Your task to perform on an android device: toggle sleep mode Image 0: 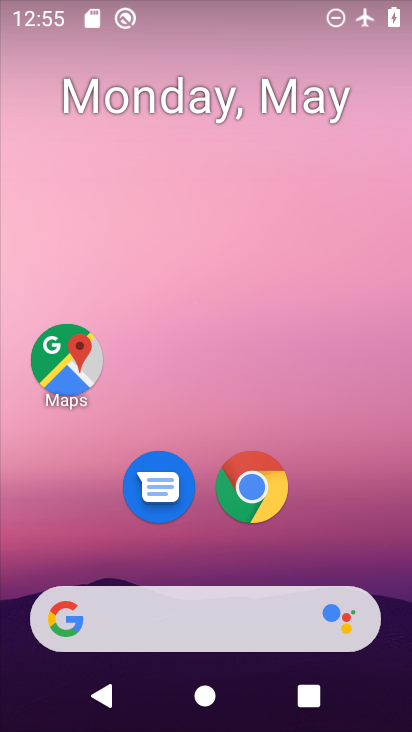
Step 0: drag from (349, 527) to (357, 201)
Your task to perform on an android device: toggle sleep mode Image 1: 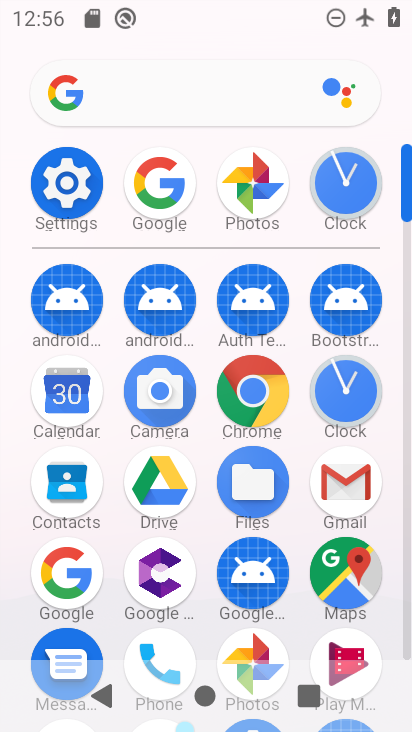
Step 1: click (67, 183)
Your task to perform on an android device: toggle sleep mode Image 2: 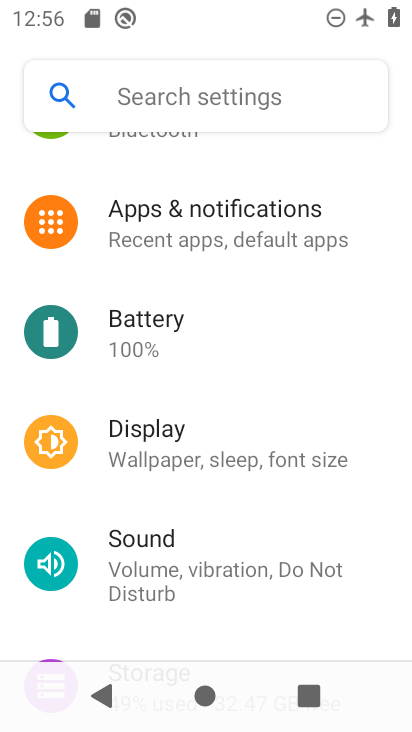
Step 2: click (240, 454)
Your task to perform on an android device: toggle sleep mode Image 3: 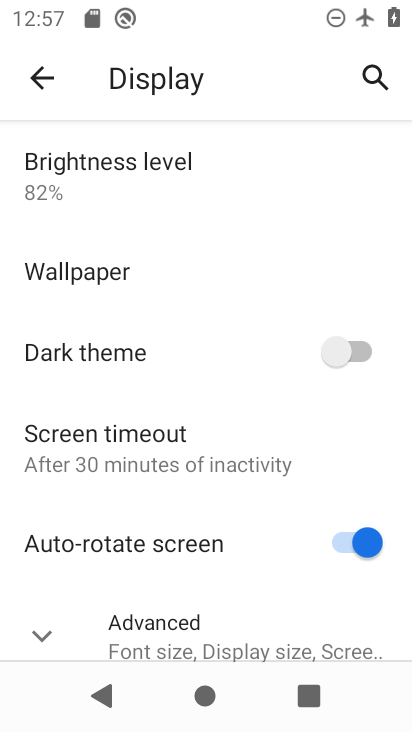
Step 3: click (132, 459)
Your task to perform on an android device: toggle sleep mode Image 4: 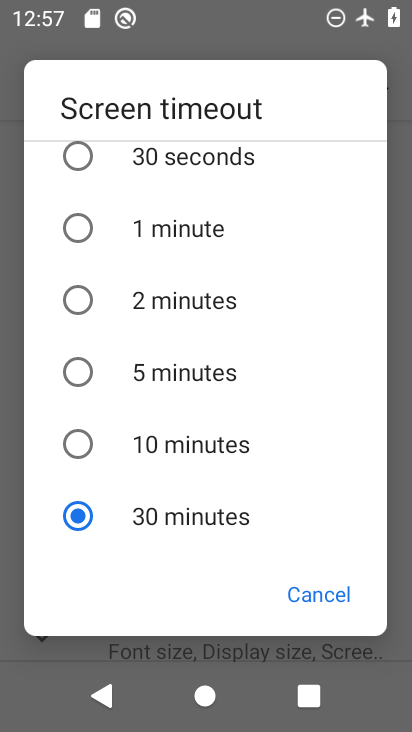
Step 4: click (63, 299)
Your task to perform on an android device: toggle sleep mode Image 5: 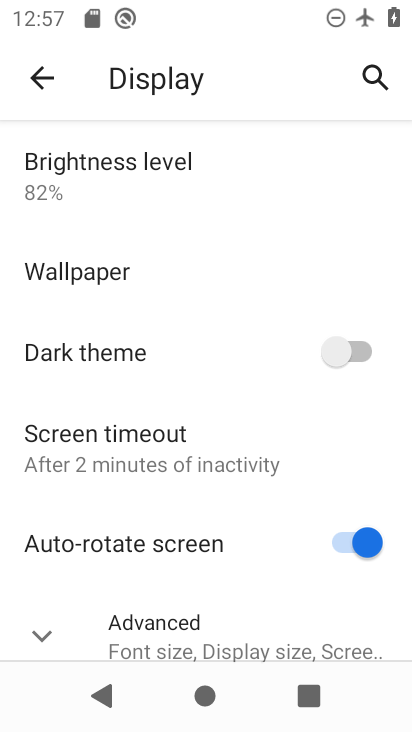
Step 5: task complete